Your task to perform on an android device: Go to calendar. Show me events next week Image 0: 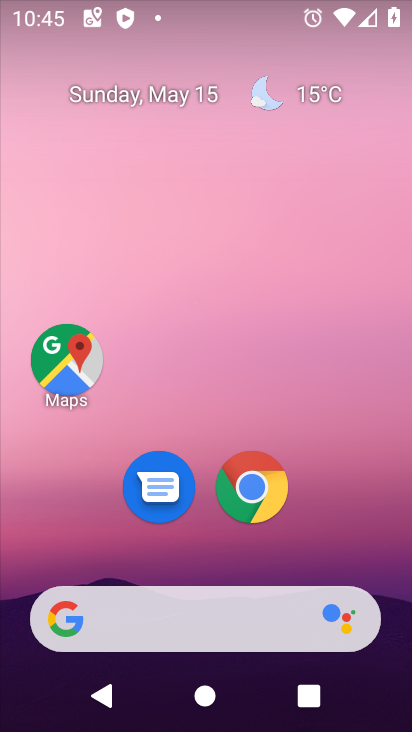
Step 0: drag from (395, 627) to (313, 6)
Your task to perform on an android device: Go to calendar. Show me events next week Image 1: 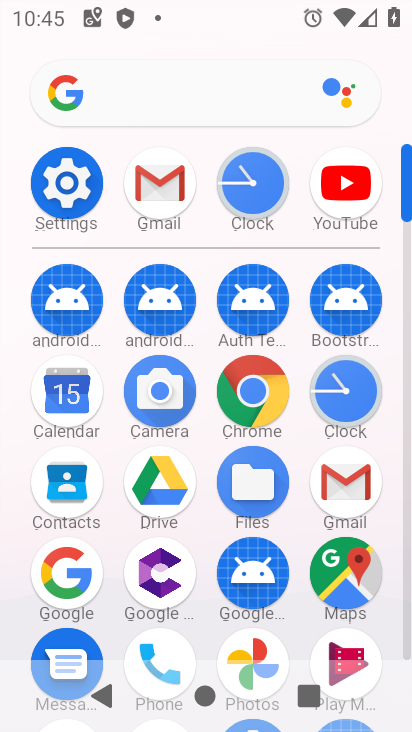
Step 1: click (405, 653)
Your task to perform on an android device: Go to calendar. Show me events next week Image 2: 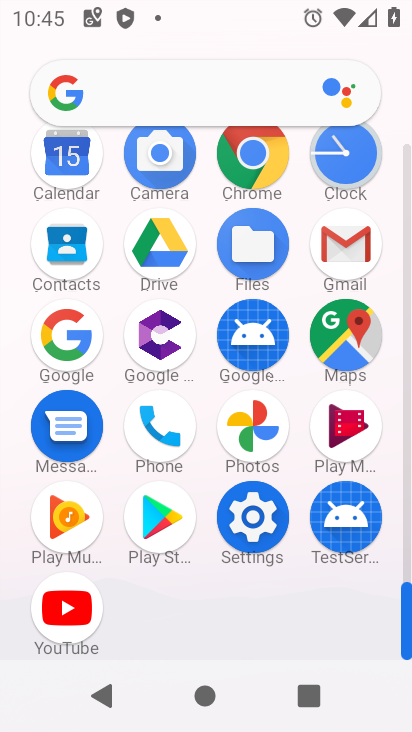
Step 2: click (66, 156)
Your task to perform on an android device: Go to calendar. Show me events next week Image 3: 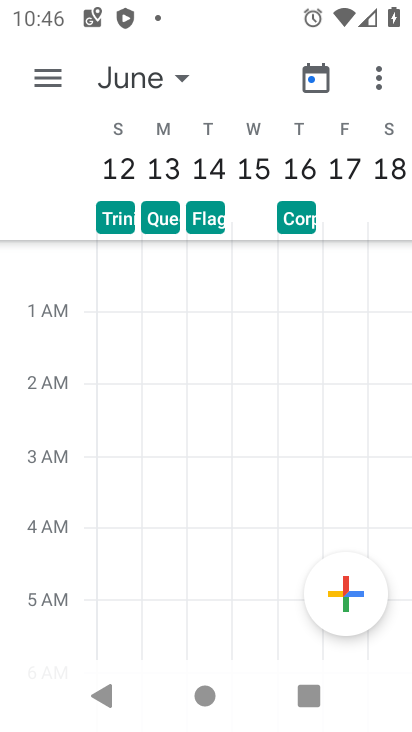
Step 3: click (48, 68)
Your task to perform on an android device: Go to calendar. Show me events next week Image 4: 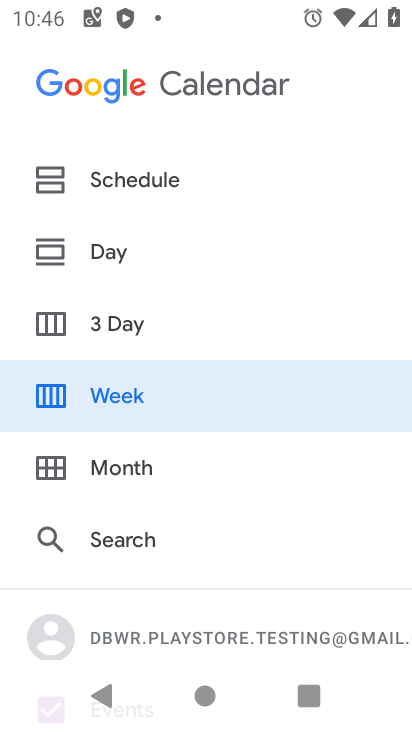
Step 4: click (148, 379)
Your task to perform on an android device: Go to calendar. Show me events next week Image 5: 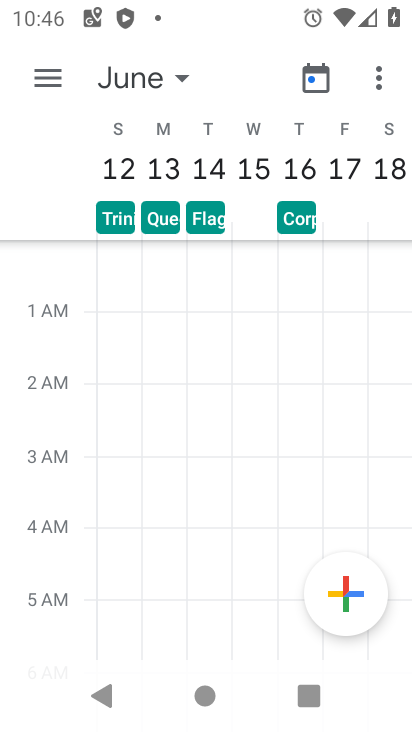
Step 5: click (174, 76)
Your task to perform on an android device: Go to calendar. Show me events next week Image 6: 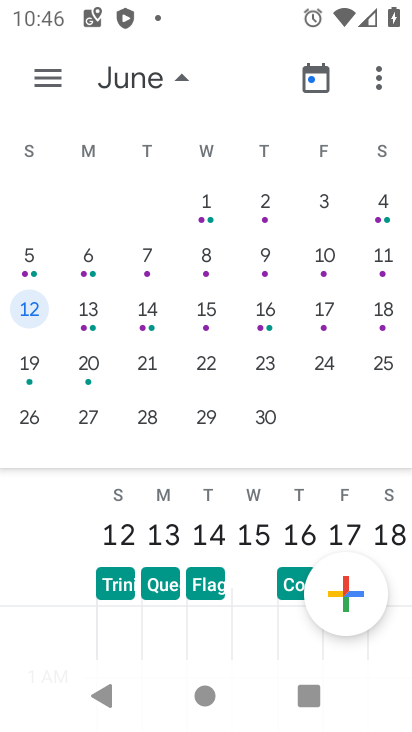
Step 6: drag from (21, 354) to (397, 233)
Your task to perform on an android device: Go to calendar. Show me events next week Image 7: 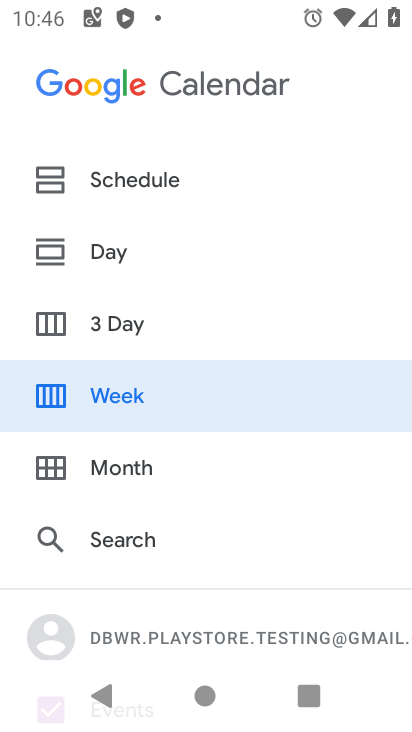
Step 7: click (117, 401)
Your task to perform on an android device: Go to calendar. Show me events next week Image 8: 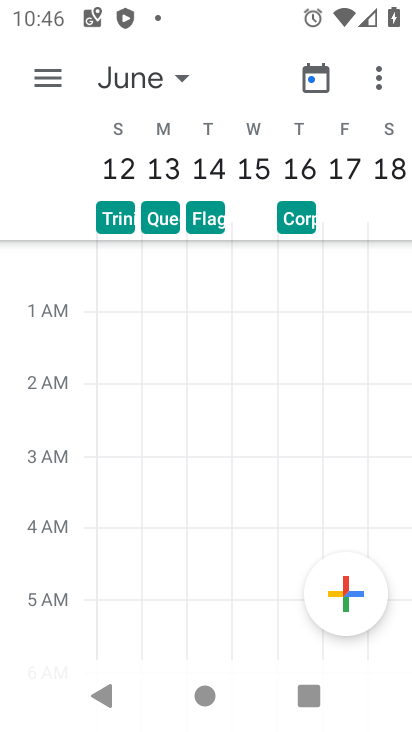
Step 8: click (184, 77)
Your task to perform on an android device: Go to calendar. Show me events next week Image 9: 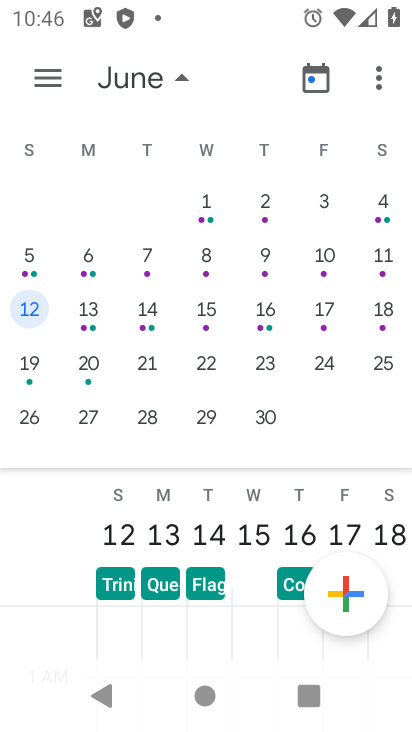
Step 9: drag from (90, 270) to (348, 264)
Your task to perform on an android device: Go to calendar. Show me events next week Image 10: 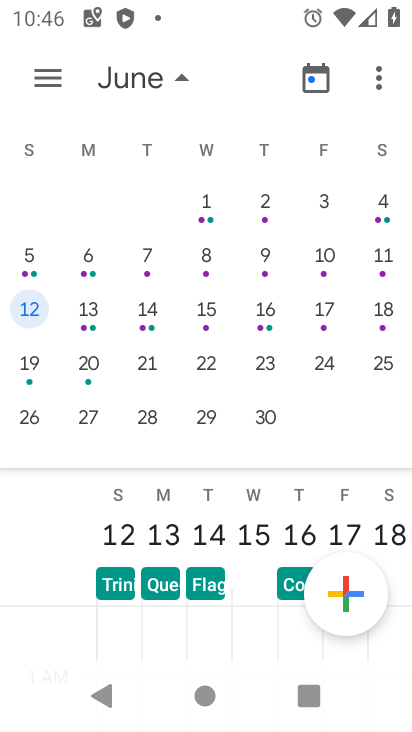
Step 10: drag from (81, 262) to (377, 241)
Your task to perform on an android device: Go to calendar. Show me events next week Image 11: 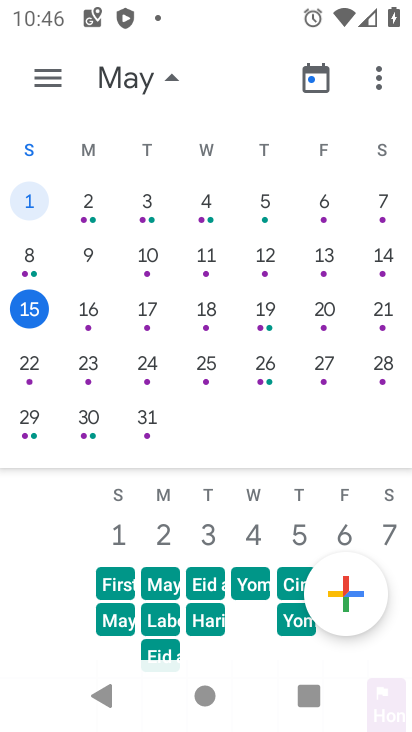
Step 11: click (26, 355)
Your task to perform on an android device: Go to calendar. Show me events next week Image 12: 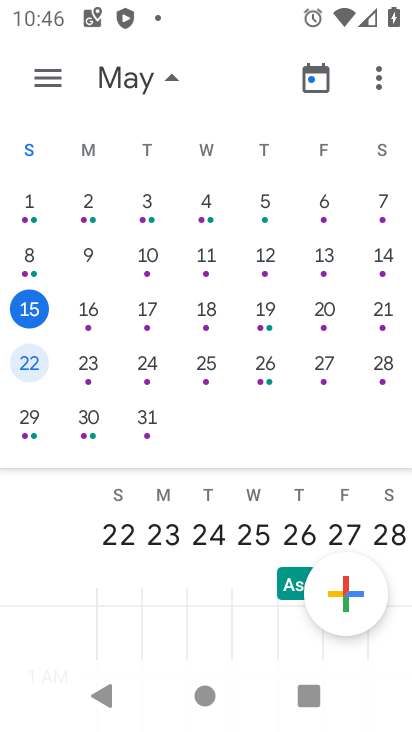
Step 12: task complete